Your task to perform on an android device: turn on the 12-hour format for clock Image 0: 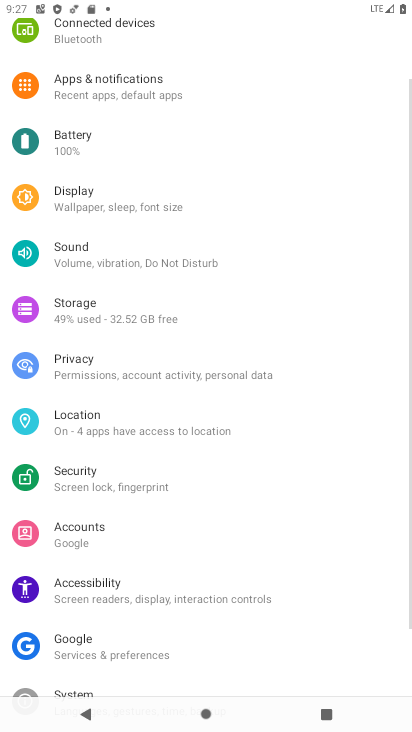
Step 0: press home button
Your task to perform on an android device: turn on the 12-hour format for clock Image 1: 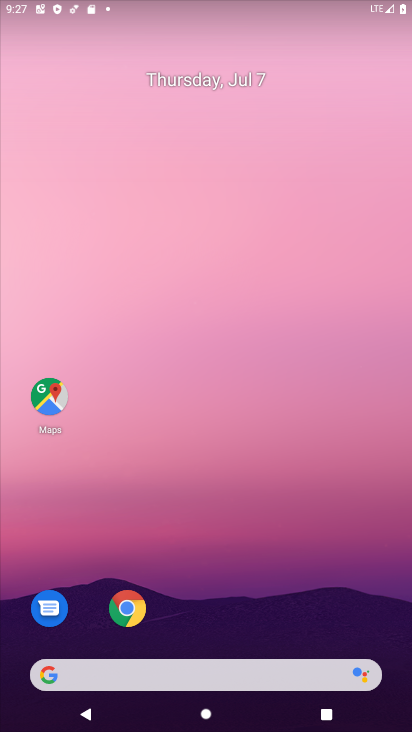
Step 1: drag from (222, 625) to (306, 26)
Your task to perform on an android device: turn on the 12-hour format for clock Image 2: 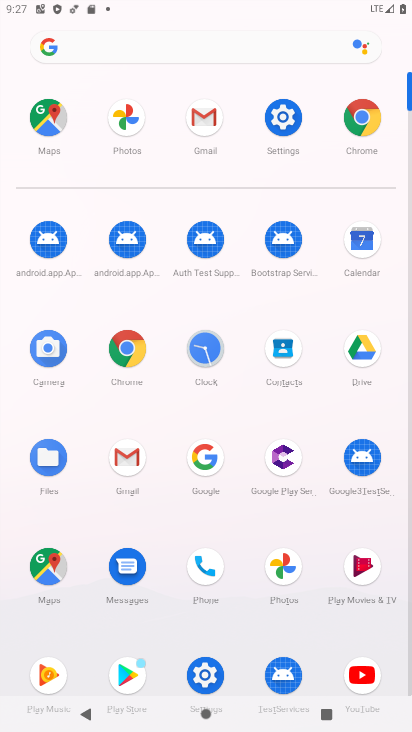
Step 2: click (201, 347)
Your task to perform on an android device: turn on the 12-hour format for clock Image 3: 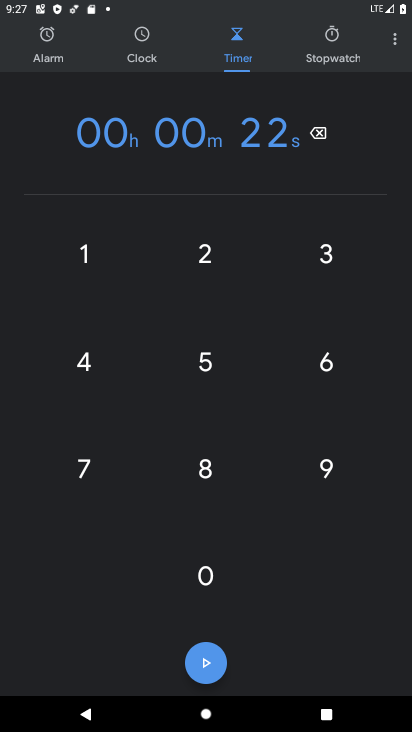
Step 3: click (389, 43)
Your task to perform on an android device: turn on the 12-hour format for clock Image 4: 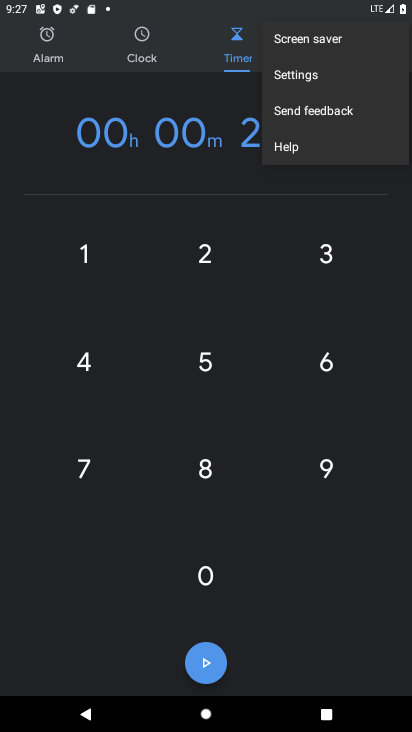
Step 4: click (302, 79)
Your task to perform on an android device: turn on the 12-hour format for clock Image 5: 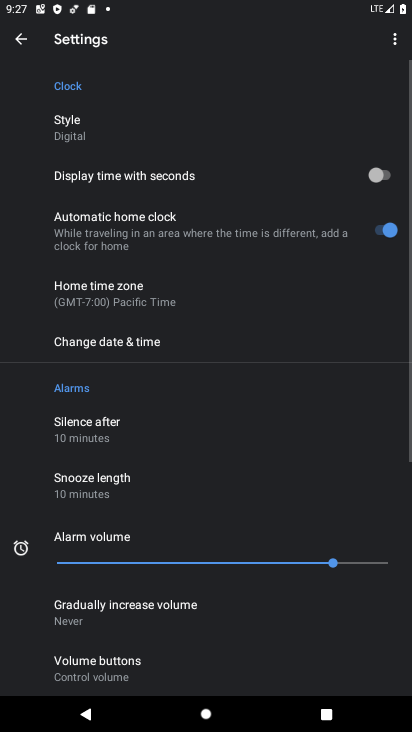
Step 5: click (132, 330)
Your task to perform on an android device: turn on the 12-hour format for clock Image 6: 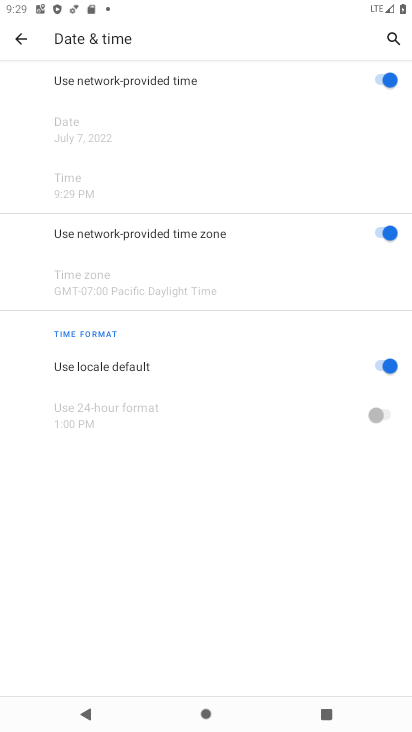
Step 6: task complete